Your task to perform on an android device: Add "sony triple a" to the cart on target, then select checkout. Image 0: 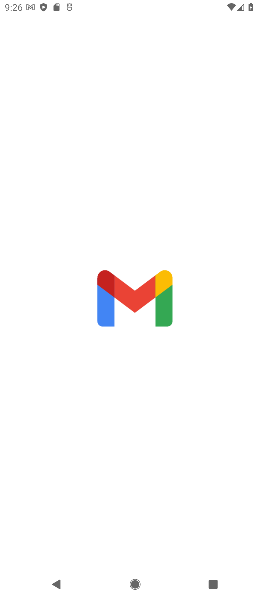
Step 0: press home button
Your task to perform on an android device: Add "sony triple a" to the cart on target, then select checkout. Image 1: 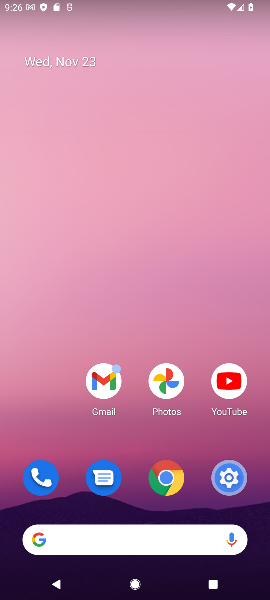
Step 1: click (115, 538)
Your task to perform on an android device: Add "sony triple a" to the cart on target, then select checkout. Image 2: 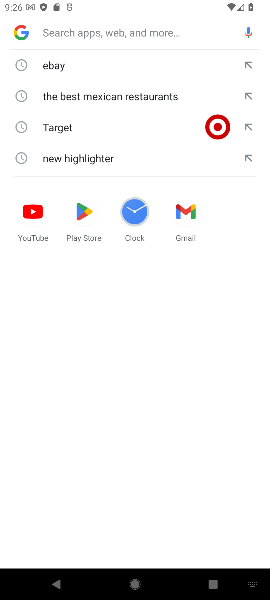
Step 2: type "target.com"
Your task to perform on an android device: Add "sony triple a" to the cart on target, then select checkout. Image 3: 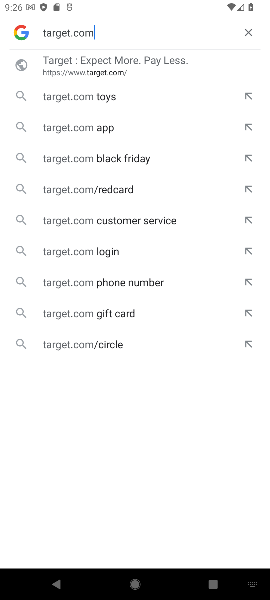
Step 3: click (74, 55)
Your task to perform on an android device: Add "sony triple a" to the cart on target, then select checkout. Image 4: 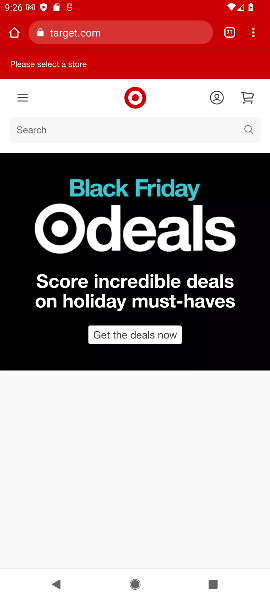
Step 4: click (58, 124)
Your task to perform on an android device: Add "sony triple a" to the cart on target, then select checkout. Image 5: 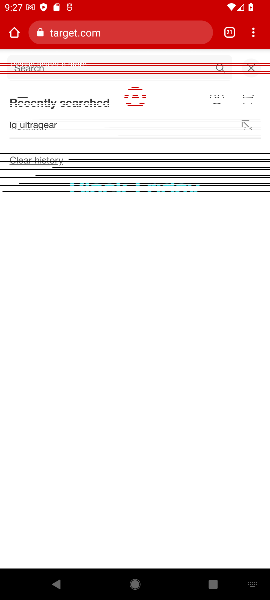
Step 5: type "sony triple"
Your task to perform on an android device: Add "sony triple a" to the cart on target, then select checkout. Image 6: 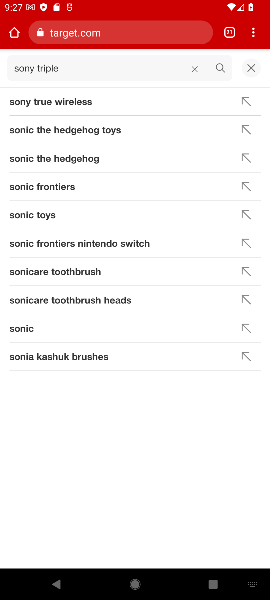
Step 6: click (225, 70)
Your task to perform on an android device: Add "sony triple a" to the cart on target, then select checkout. Image 7: 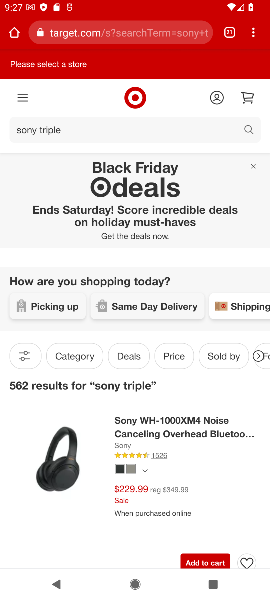
Step 7: click (211, 563)
Your task to perform on an android device: Add "sony triple a" to the cart on target, then select checkout. Image 8: 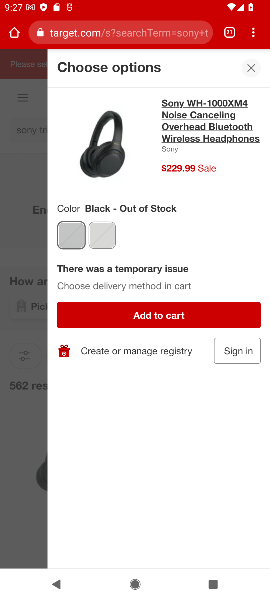
Step 8: click (124, 312)
Your task to perform on an android device: Add "sony triple a" to the cart on target, then select checkout. Image 9: 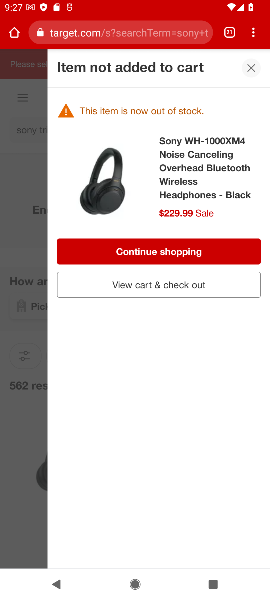
Step 9: task complete